Your task to perform on an android device: check out phone information Image 0: 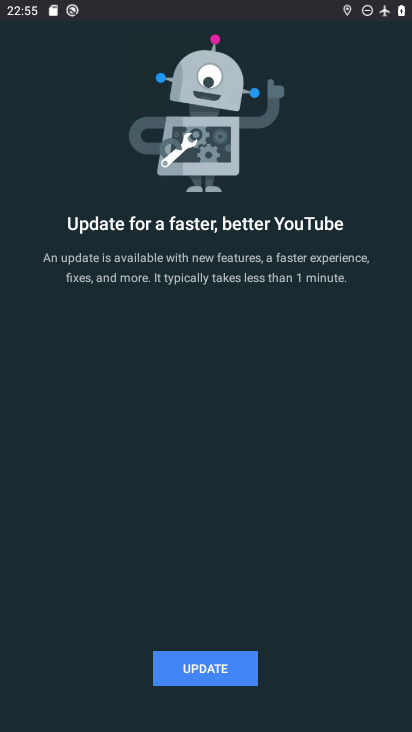
Step 0: press home button
Your task to perform on an android device: check out phone information Image 1: 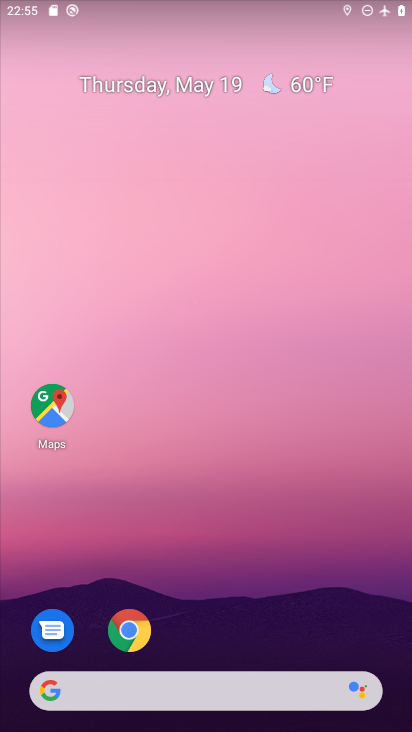
Step 1: drag from (258, 554) to (184, 188)
Your task to perform on an android device: check out phone information Image 2: 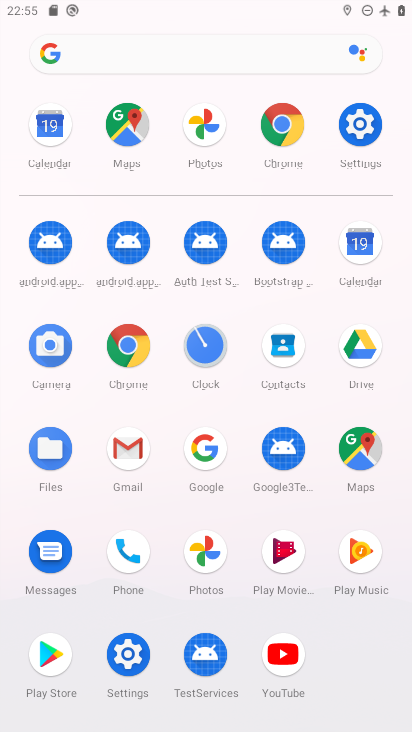
Step 2: click (125, 661)
Your task to perform on an android device: check out phone information Image 3: 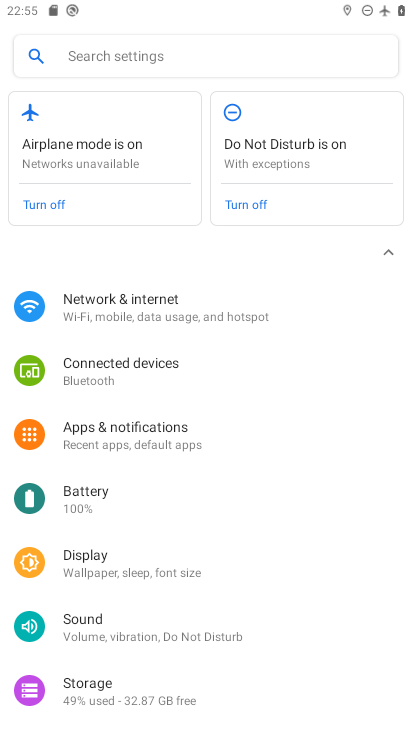
Step 3: drag from (249, 516) to (239, 272)
Your task to perform on an android device: check out phone information Image 4: 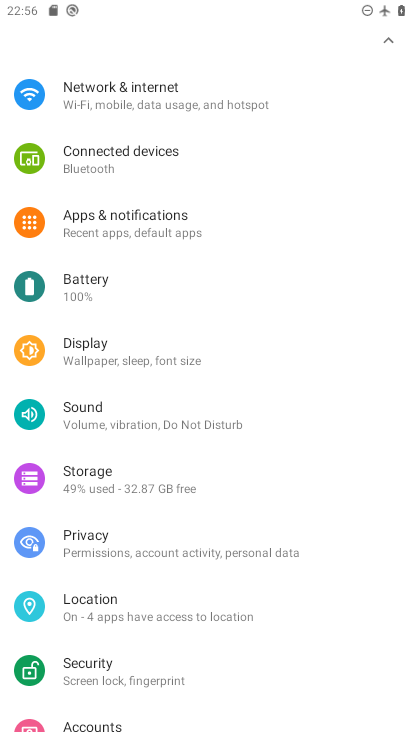
Step 4: drag from (277, 493) to (250, 223)
Your task to perform on an android device: check out phone information Image 5: 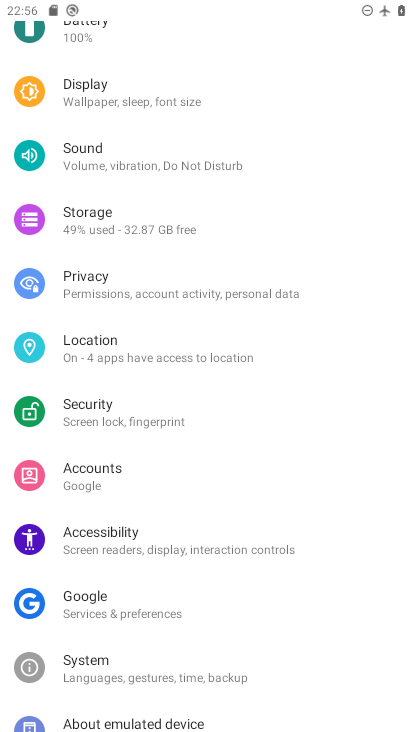
Step 5: drag from (283, 433) to (202, 72)
Your task to perform on an android device: check out phone information Image 6: 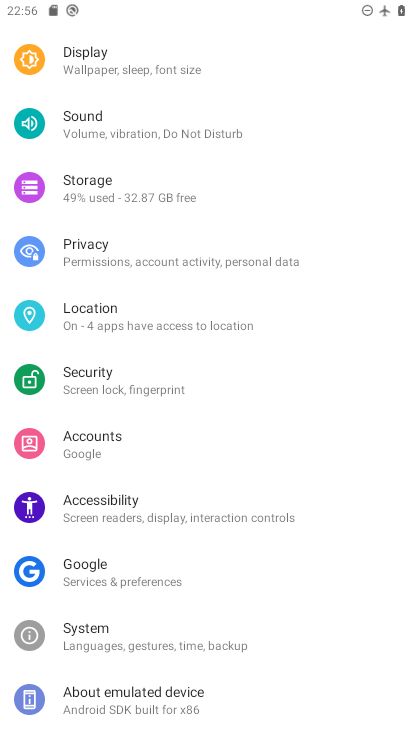
Step 6: click (133, 693)
Your task to perform on an android device: check out phone information Image 7: 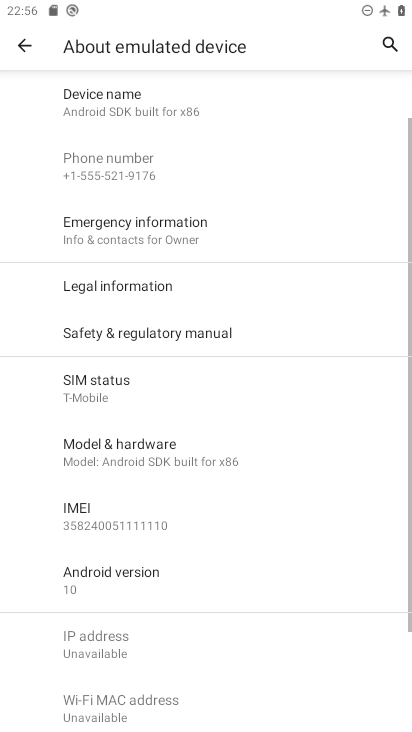
Step 7: task complete